Your task to perform on an android device: Search for bose quietcomfort 35 on costco, select the first entry, and add it to the cart. Image 0: 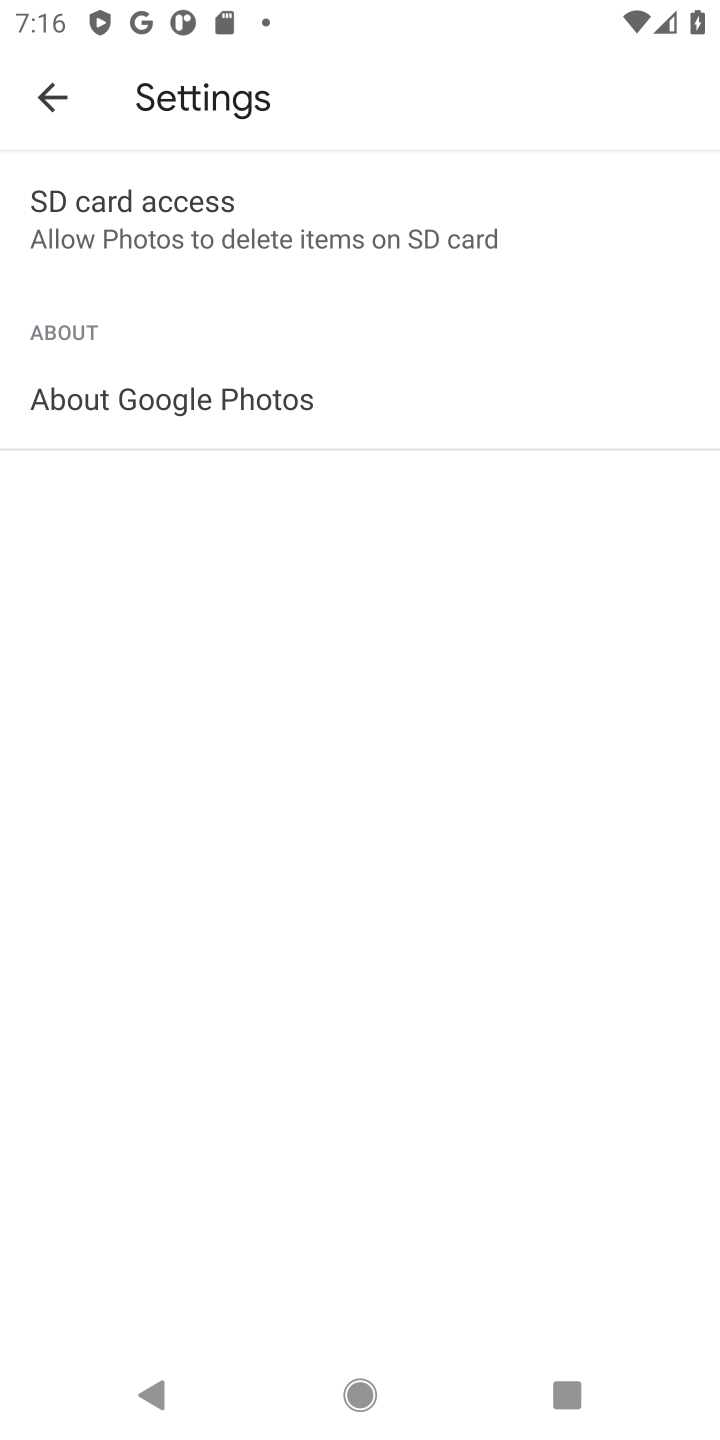
Step 0: press home button
Your task to perform on an android device: Search for bose quietcomfort 35 on costco, select the first entry, and add it to the cart. Image 1: 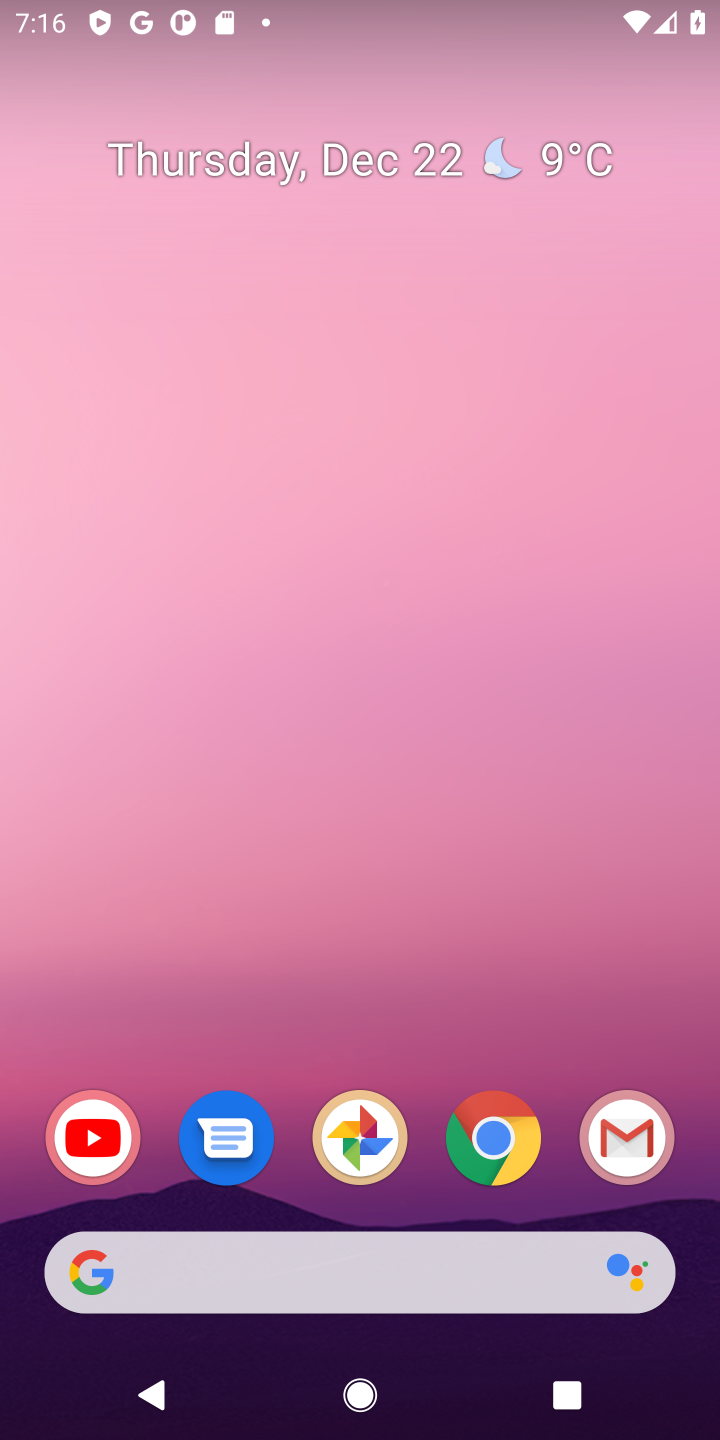
Step 1: click (496, 1145)
Your task to perform on an android device: Search for bose quietcomfort 35 on costco, select the first entry, and add it to the cart. Image 2: 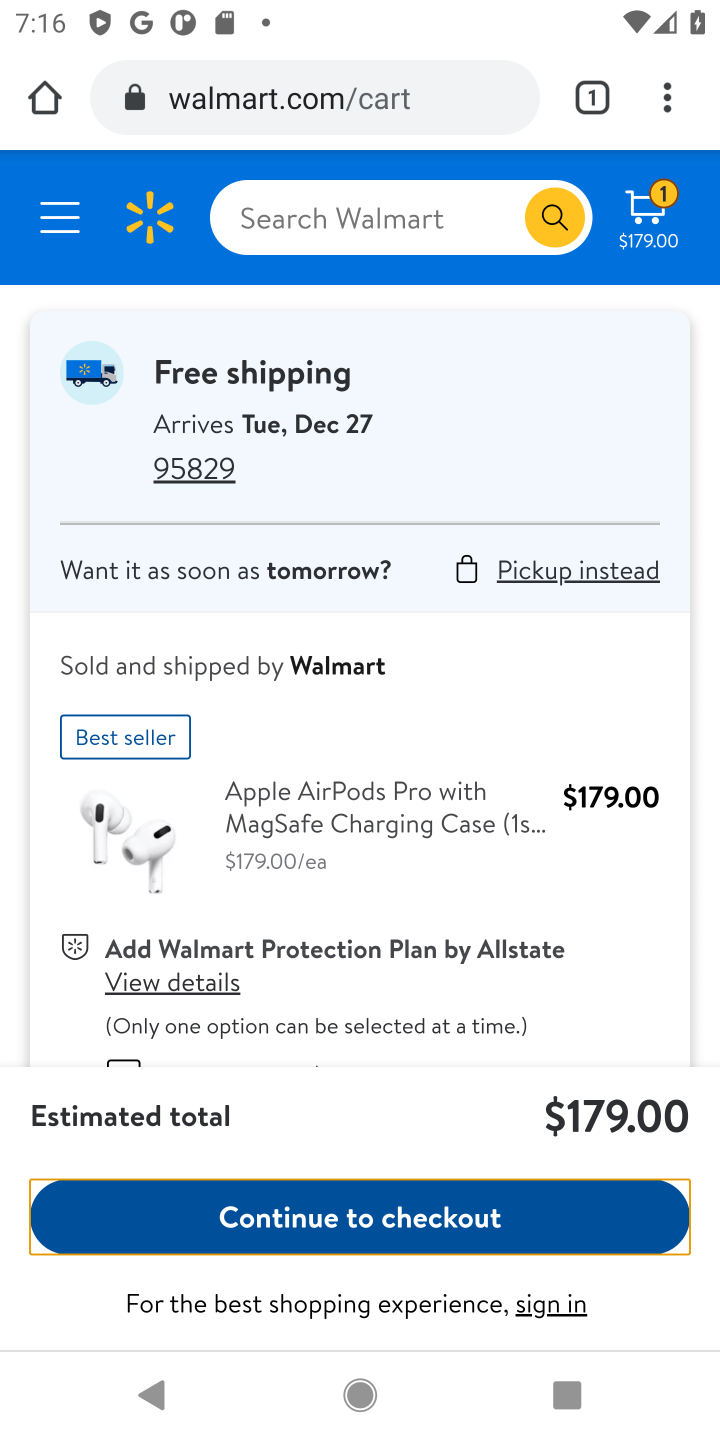
Step 2: click (478, 99)
Your task to perform on an android device: Search for bose quietcomfort 35 on costco, select the first entry, and add it to the cart. Image 3: 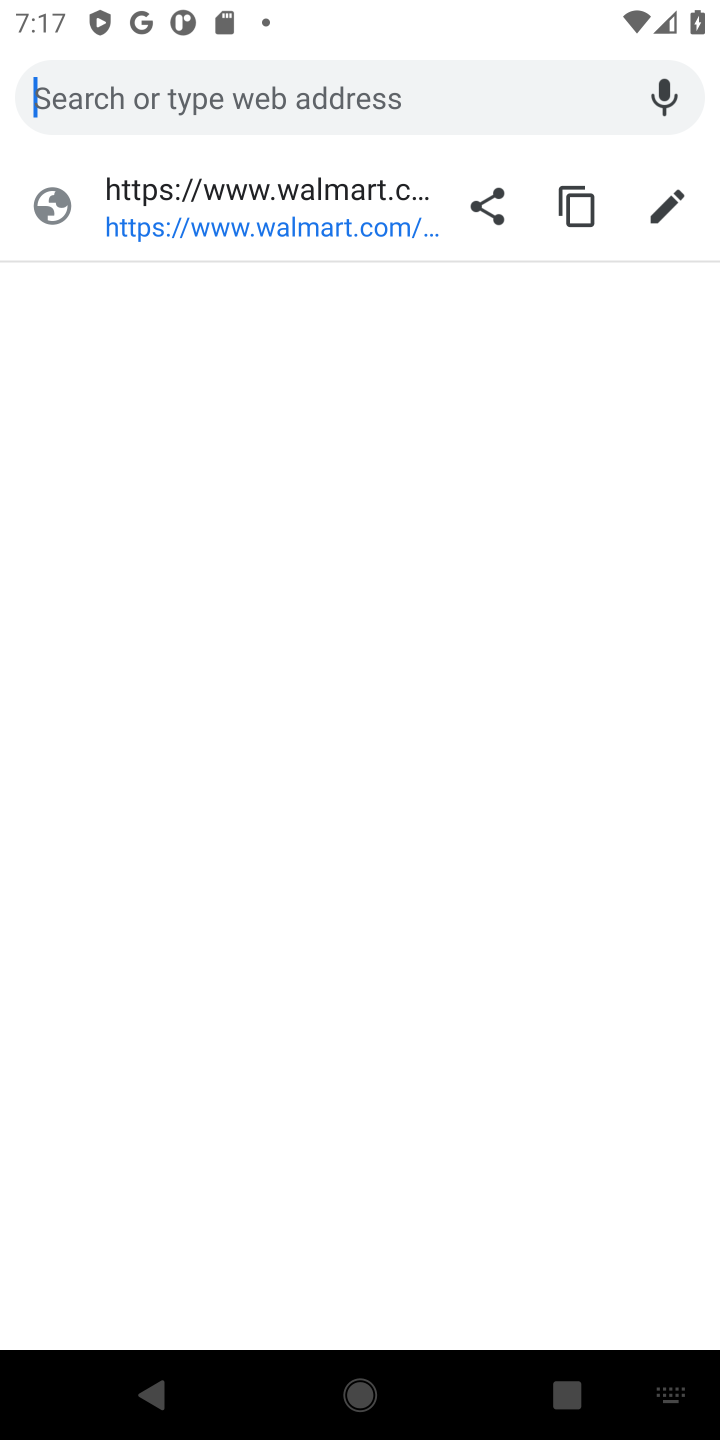
Step 3: press enter
Your task to perform on an android device: Search for bose quietcomfort 35 on costco, select the first entry, and add it to the cart. Image 4: 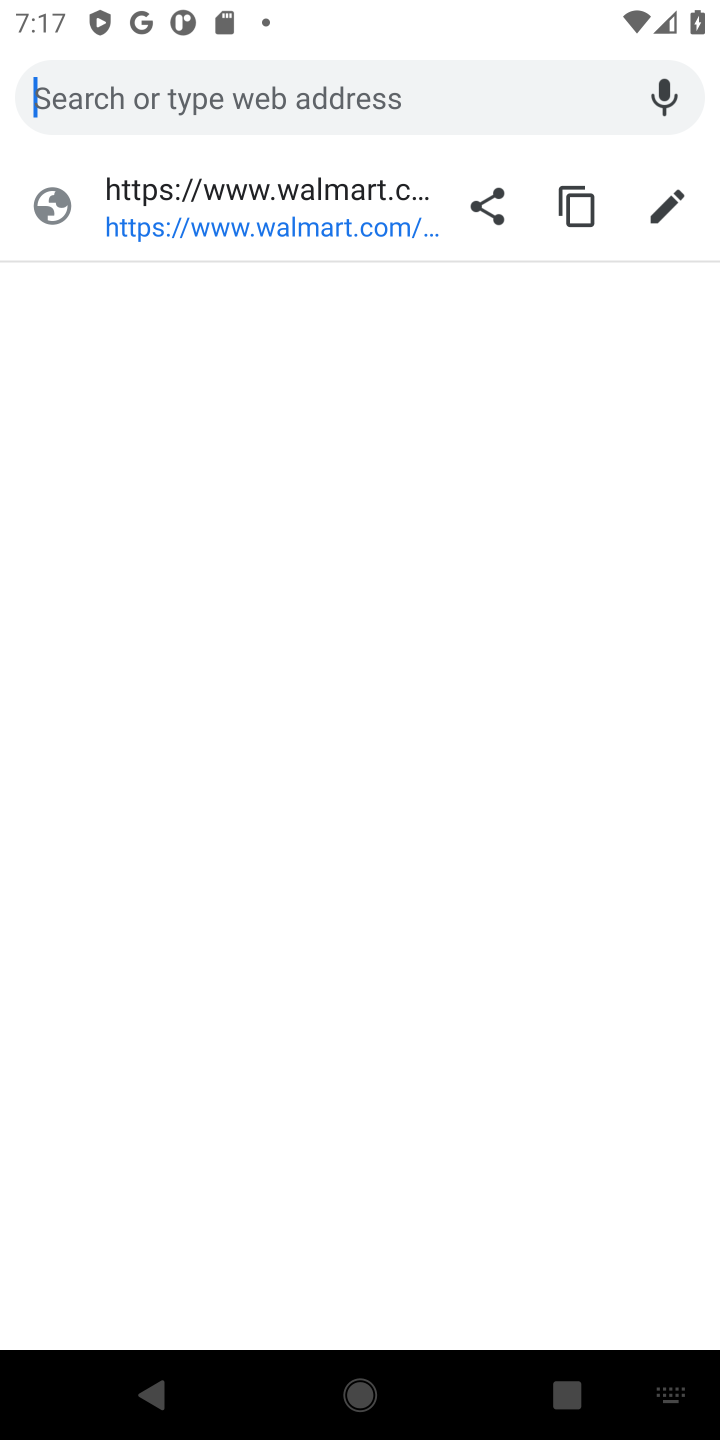
Step 4: type "costco"
Your task to perform on an android device: Search for bose quietcomfort 35 on costco, select the first entry, and add it to the cart. Image 5: 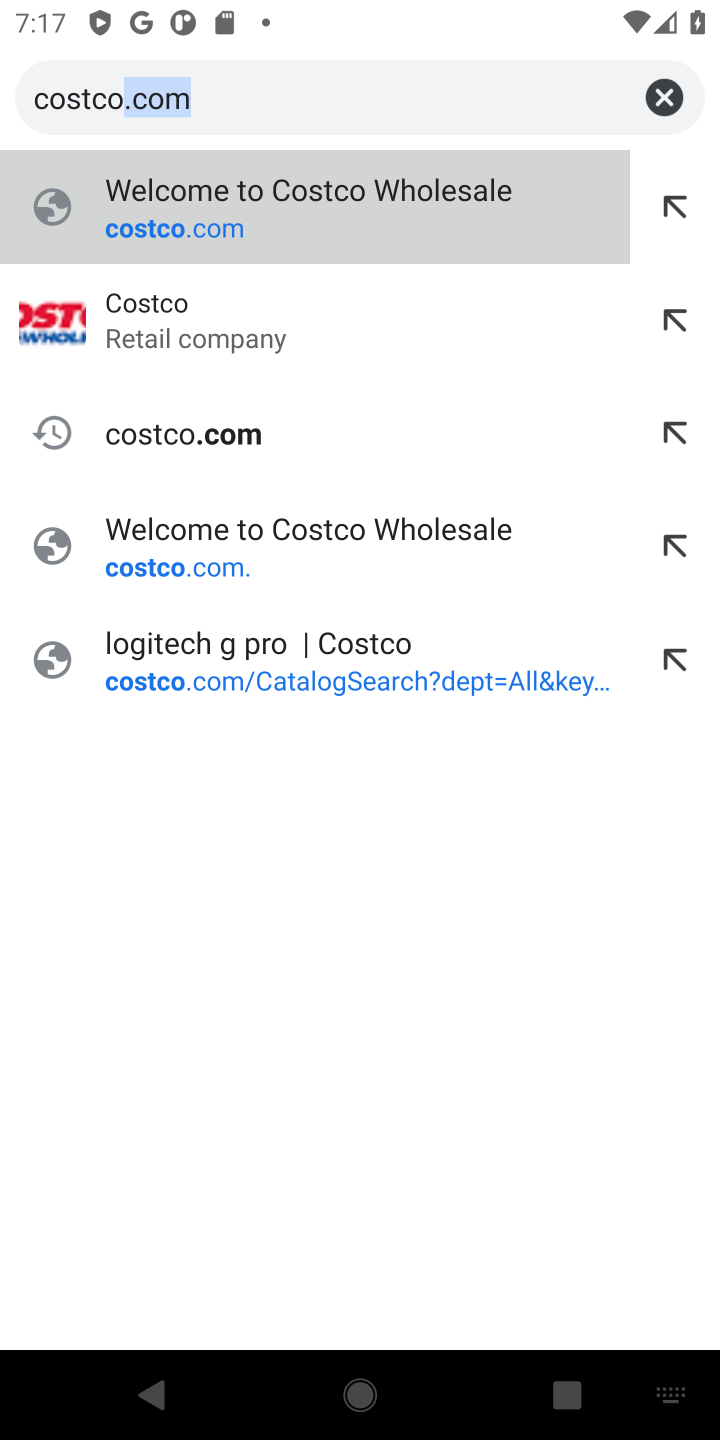
Step 5: click (218, 430)
Your task to perform on an android device: Search for bose quietcomfort 35 on costco, select the first entry, and add it to the cart. Image 6: 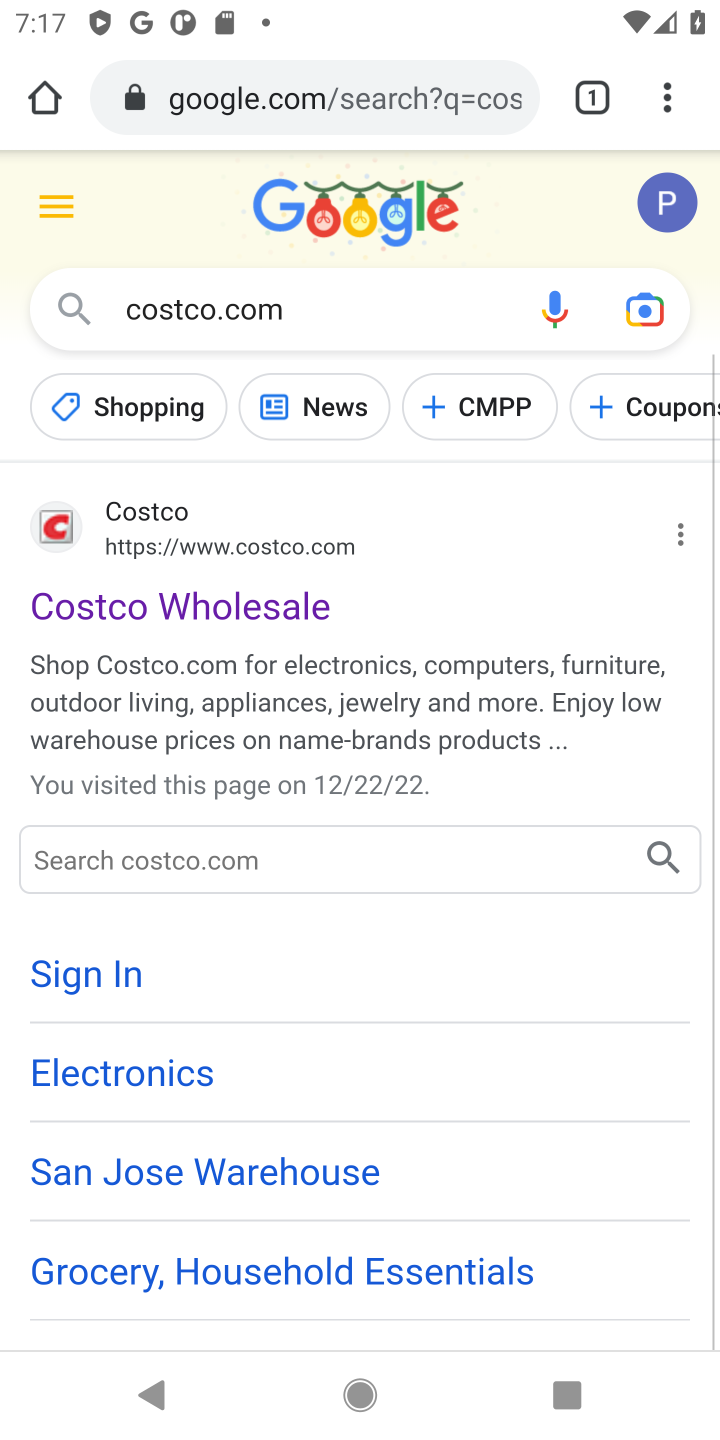
Step 6: click (265, 550)
Your task to perform on an android device: Search for bose quietcomfort 35 on costco, select the first entry, and add it to the cart. Image 7: 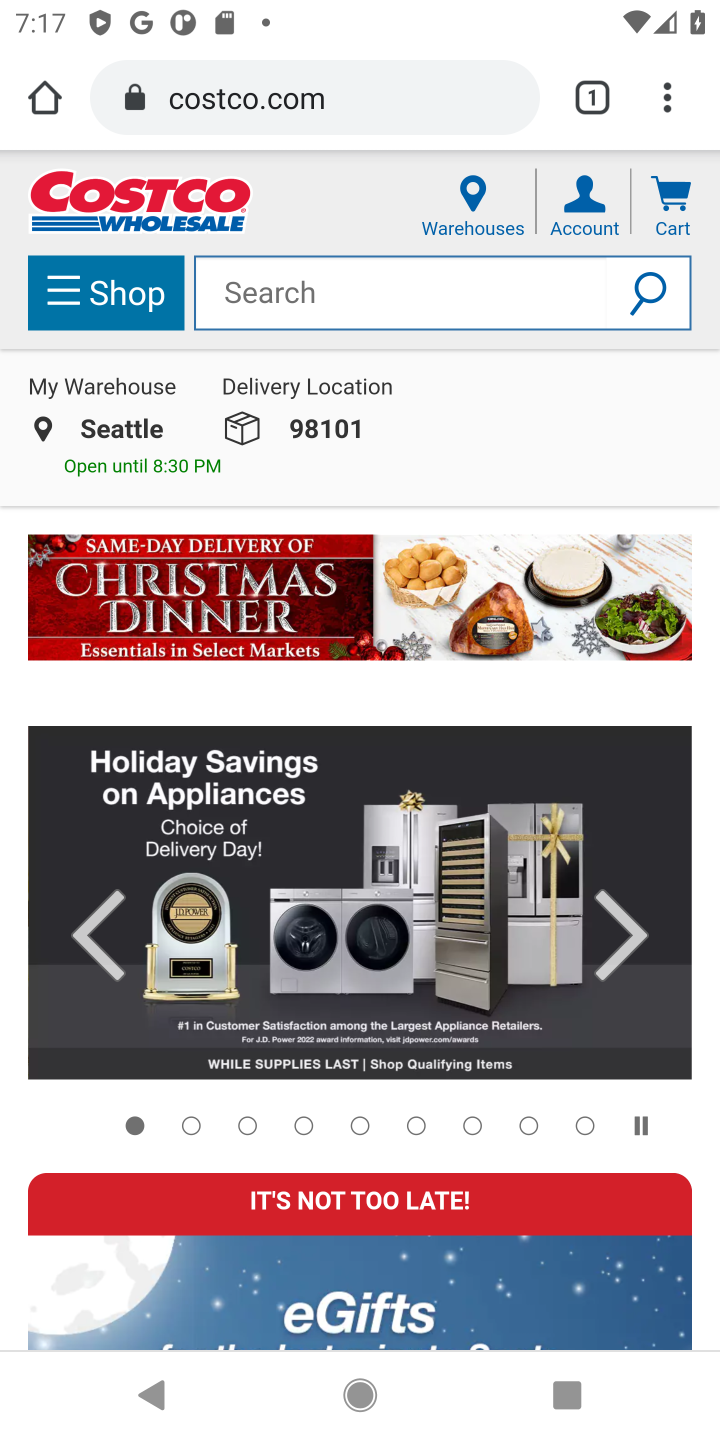
Step 7: click (523, 282)
Your task to perform on an android device: Search for bose quietcomfort 35 on costco, select the first entry, and add it to the cart. Image 8: 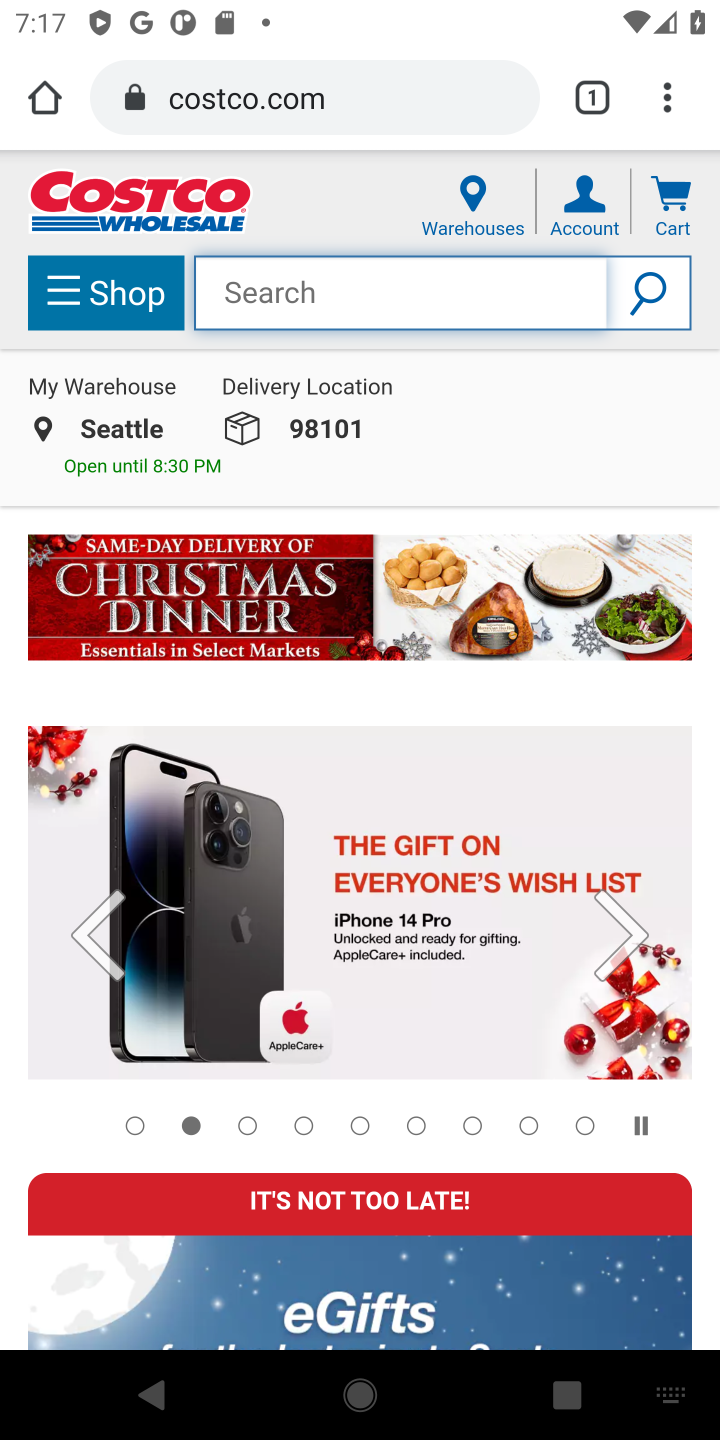
Step 8: press enter
Your task to perform on an android device: Search for bose quietcomfort 35 on costco, select the first entry, and add it to the cart. Image 9: 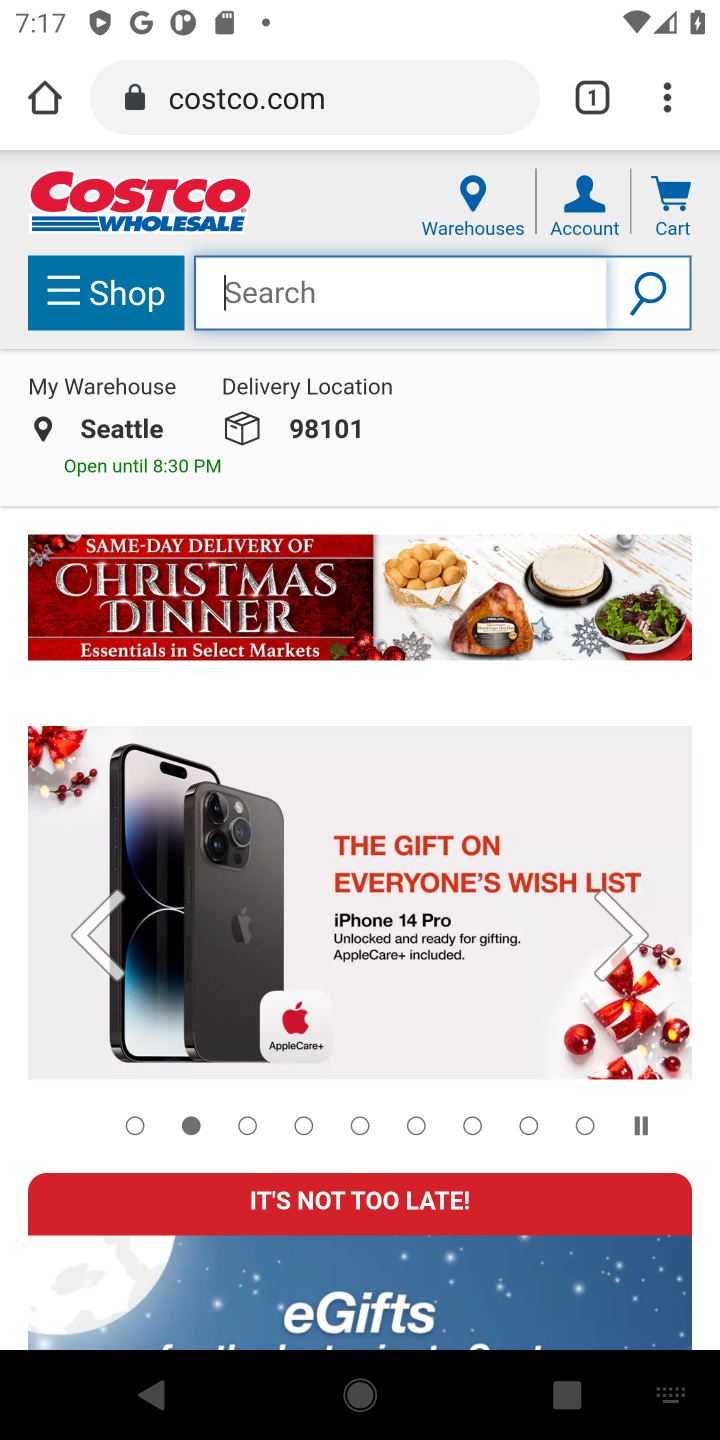
Step 9: type "bose quietcomfort 35"
Your task to perform on an android device: Search for bose quietcomfort 35 on costco, select the first entry, and add it to the cart. Image 10: 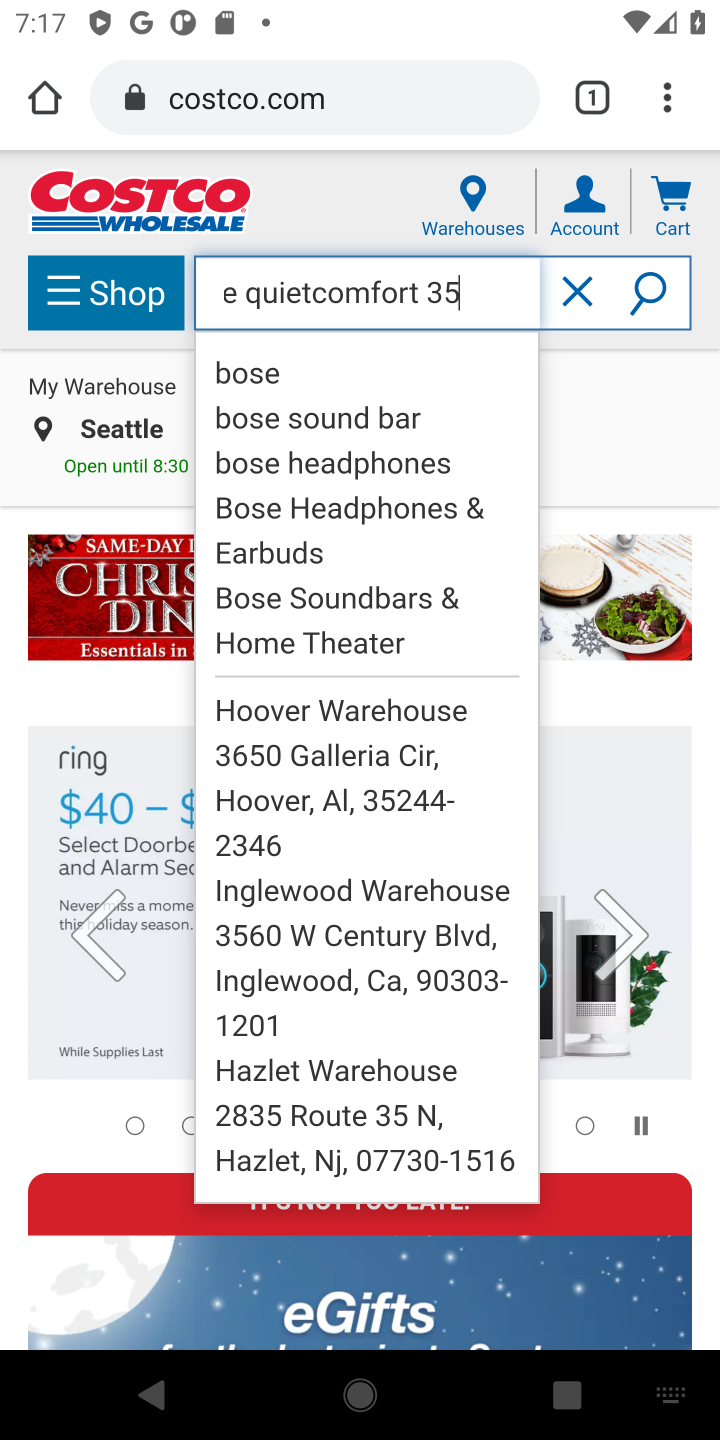
Step 10: click (637, 288)
Your task to perform on an android device: Search for bose quietcomfort 35 on costco, select the first entry, and add it to the cart. Image 11: 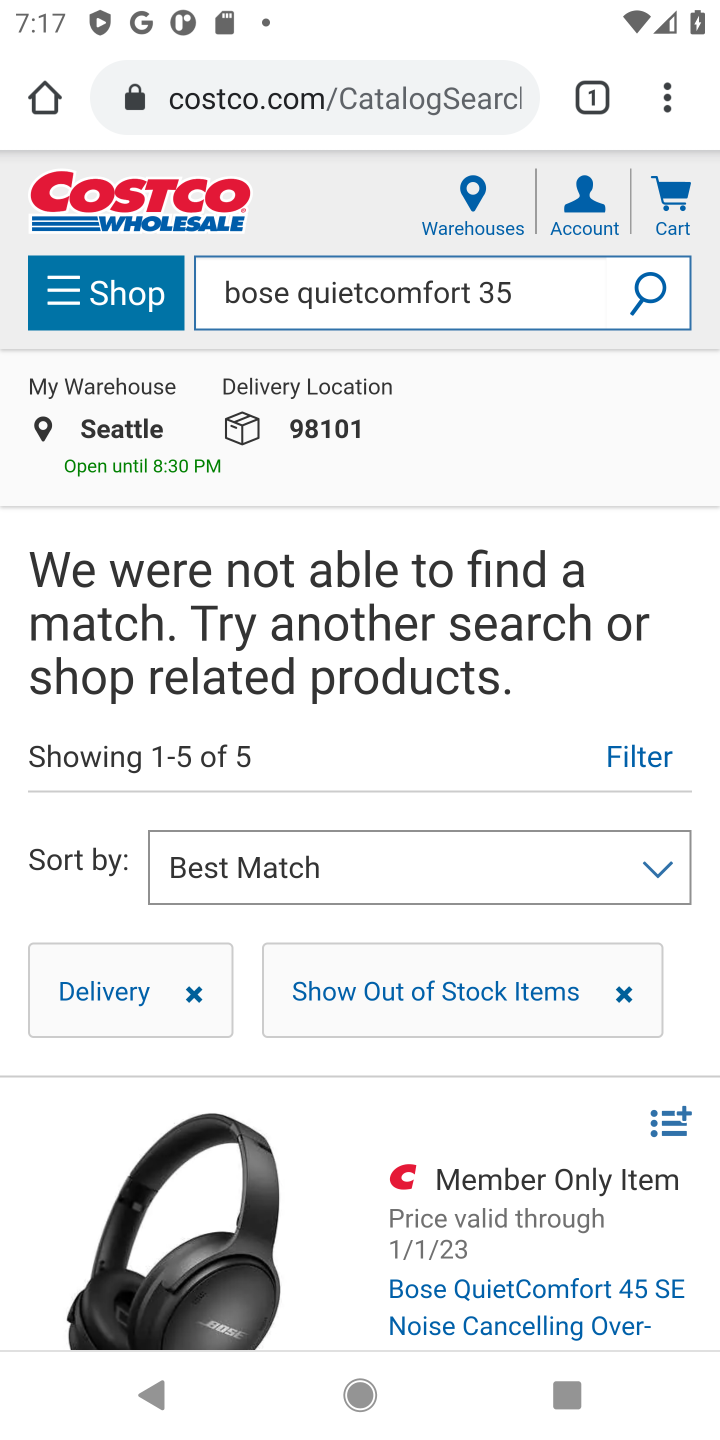
Step 11: task complete